Your task to perform on an android device: change timer sound Image 0: 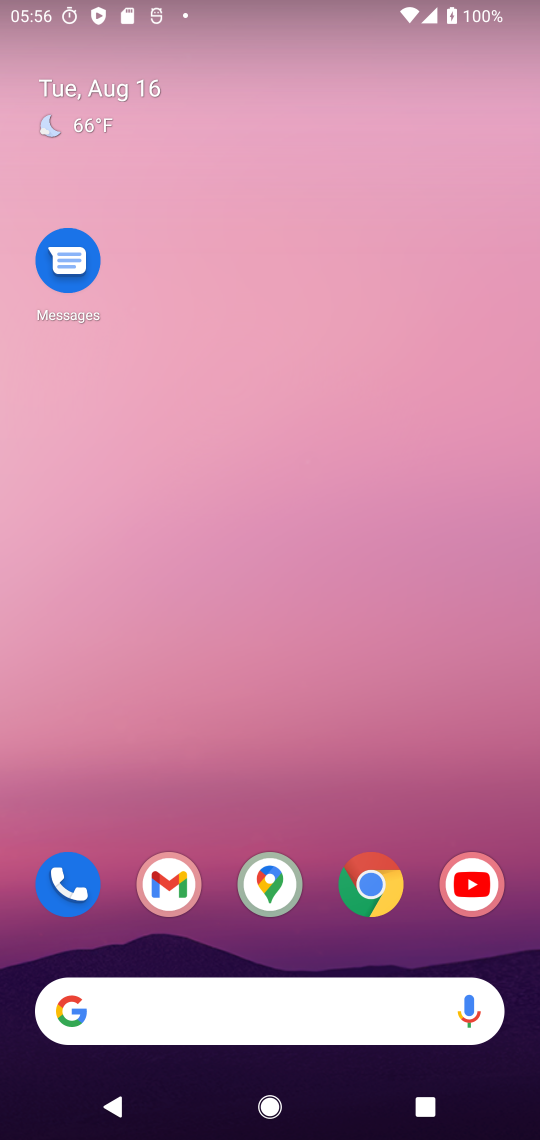
Step 0: drag from (39, 1070) to (341, 478)
Your task to perform on an android device: change timer sound Image 1: 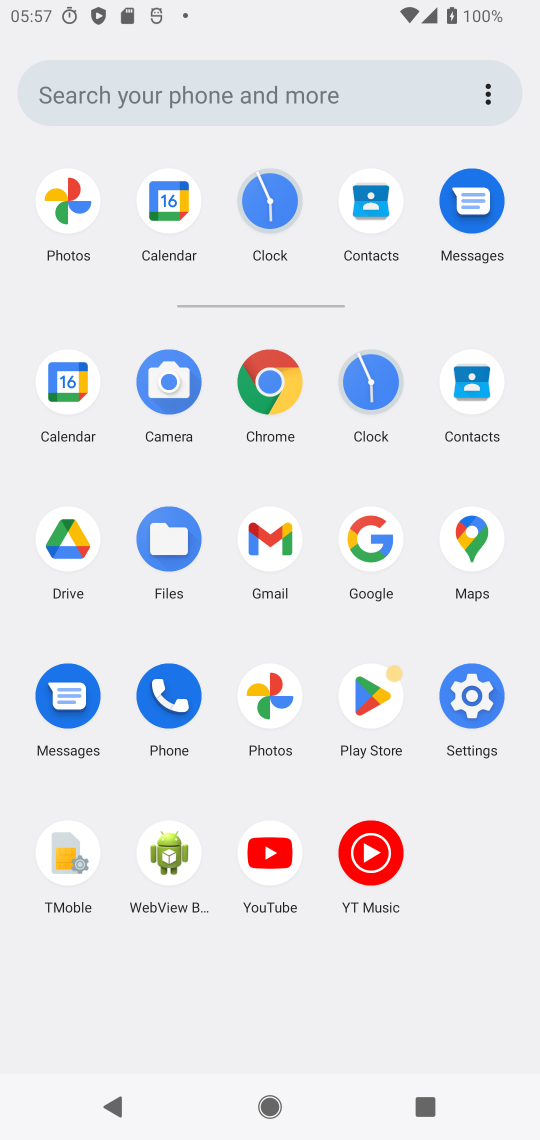
Step 1: click (469, 698)
Your task to perform on an android device: change timer sound Image 2: 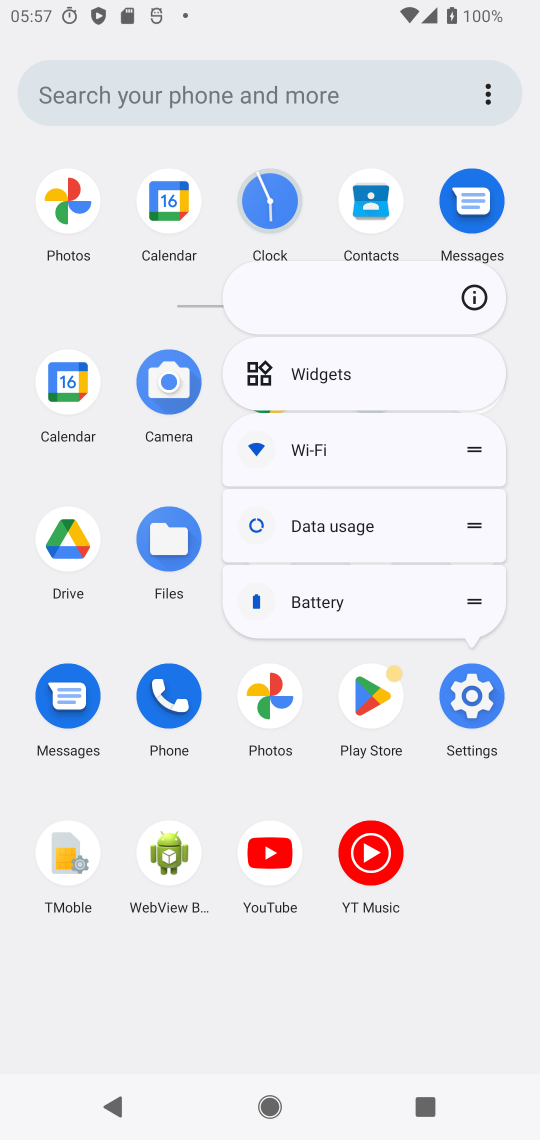
Step 2: click (163, 939)
Your task to perform on an android device: change timer sound Image 3: 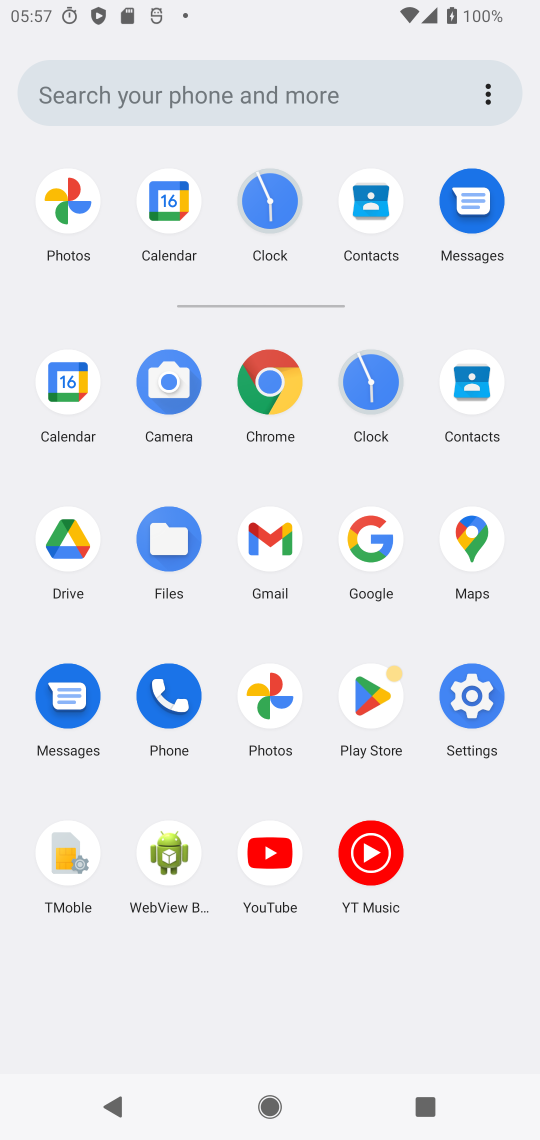
Step 3: click (272, 236)
Your task to perform on an android device: change timer sound Image 4: 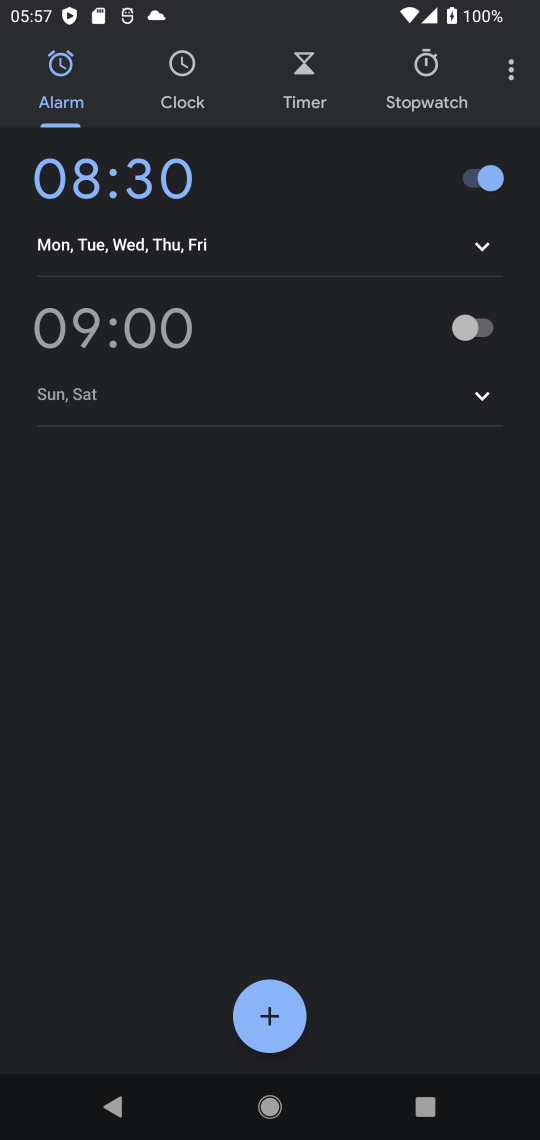
Step 4: click (299, 112)
Your task to perform on an android device: change timer sound Image 5: 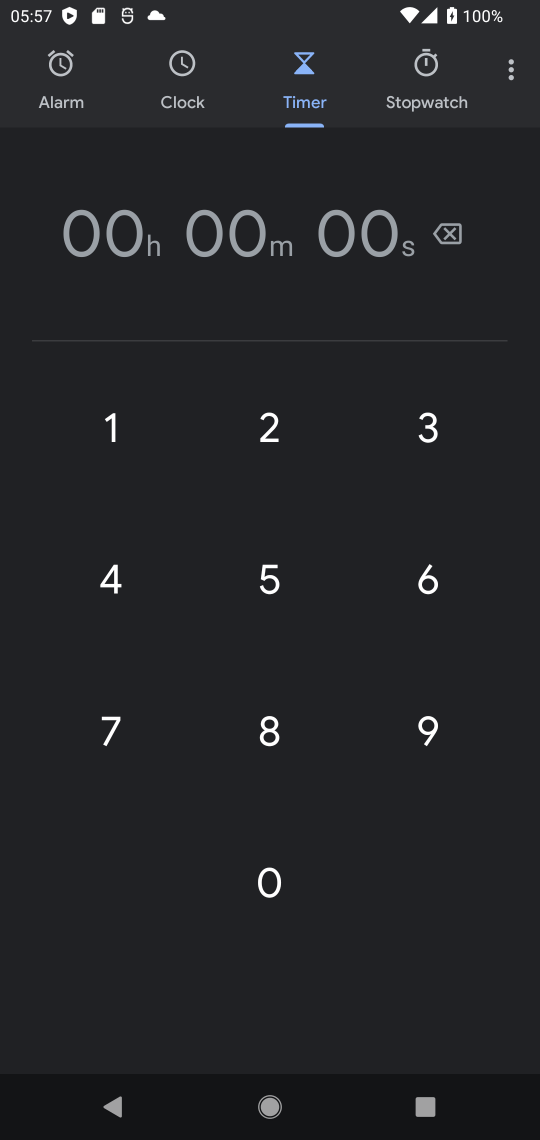
Step 5: click (260, 566)
Your task to perform on an android device: change timer sound Image 6: 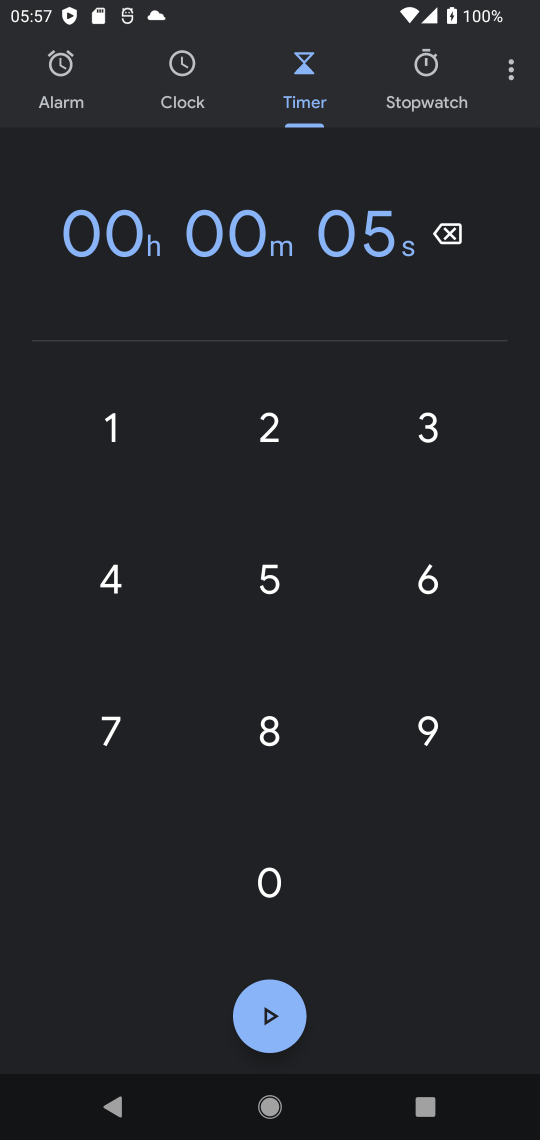
Step 6: click (264, 1024)
Your task to perform on an android device: change timer sound Image 7: 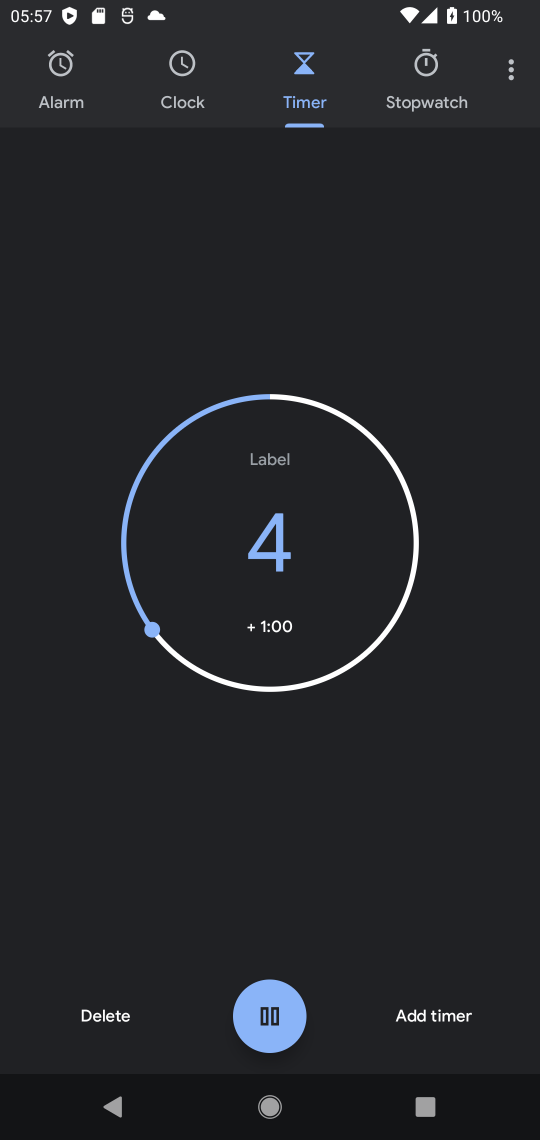
Step 7: click (264, 1024)
Your task to perform on an android device: change timer sound Image 8: 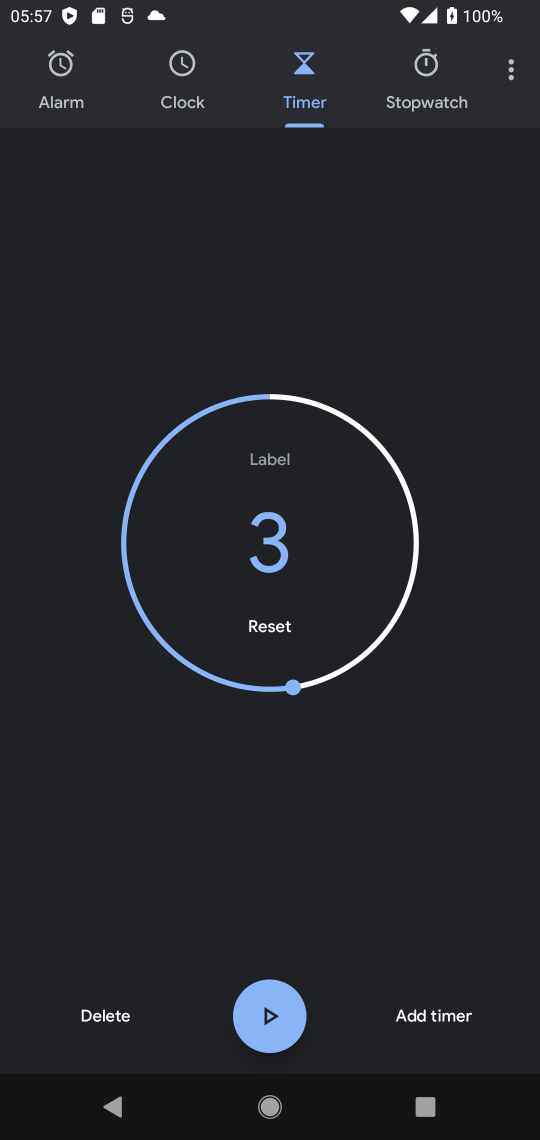
Step 8: task complete